Your task to perform on an android device: change notification settings in the gmail app Image 0: 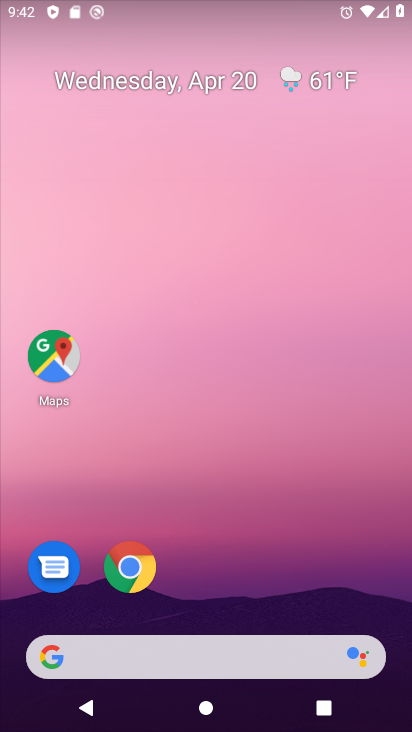
Step 0: drag from (257, 548) to (260, 185)
Your task to perform on an android device: change notification settings in the gmail app Image 1: 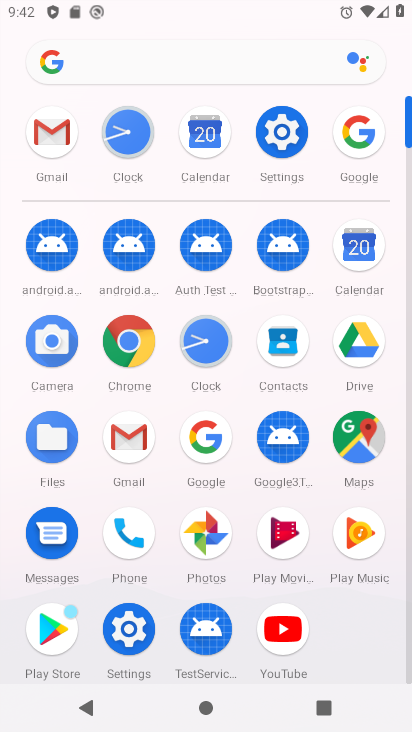
Step 1: click (56, 143)
Your task to perform on an android device: change notification settings in the gmail app Image 2: 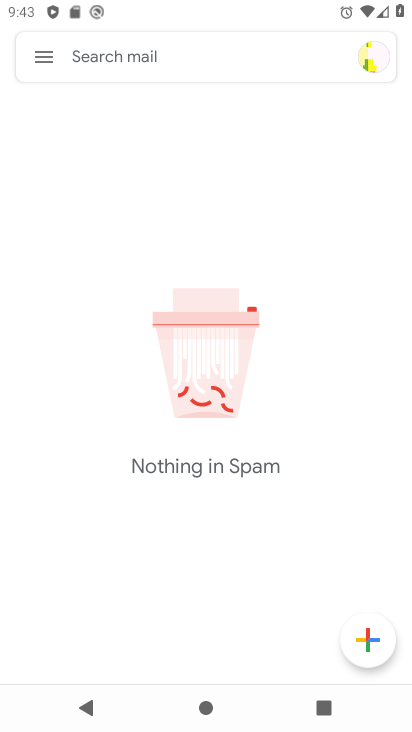
Step 2: click (48, 48)
Your task to perform on an android device: change notification settings in the gmail app Image 3: 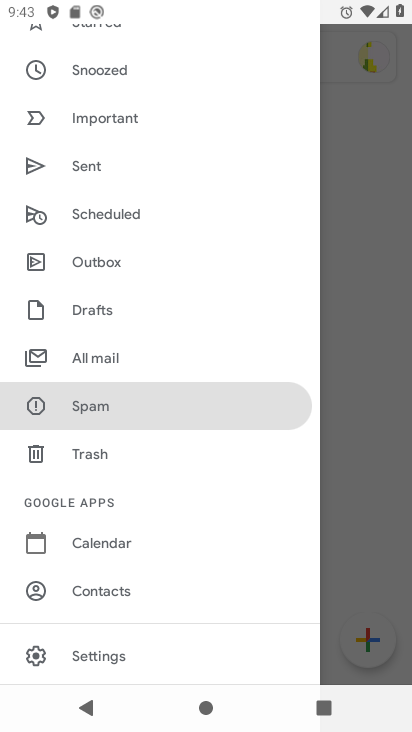
Step 3: click (116, 643)
Your task to perform on an android device: change notification settings in the gmail app Image 4: 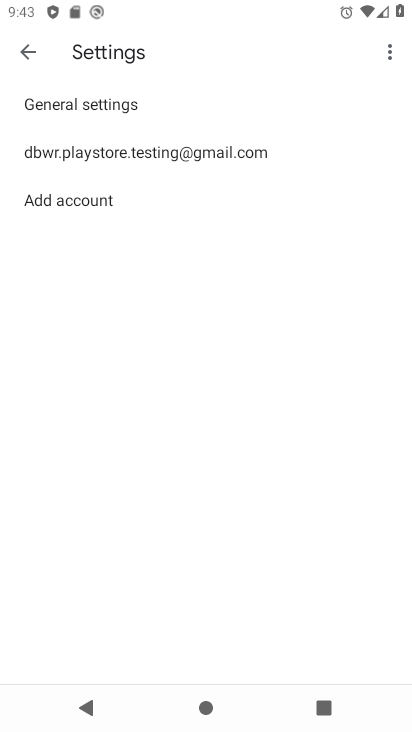
Step 4: click (156, 149)
Your task to perform on an android device: change notification settings in the gmail app Image 5: 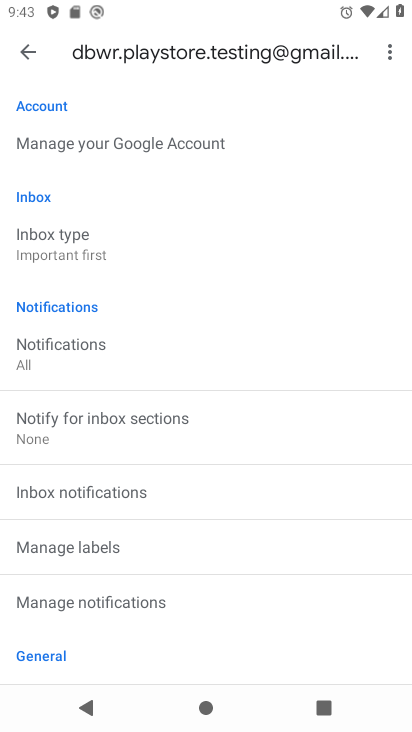
Step 5: click (135, 593)
Your task to perform on an android device: change notification settings in the gmail app Image 6: 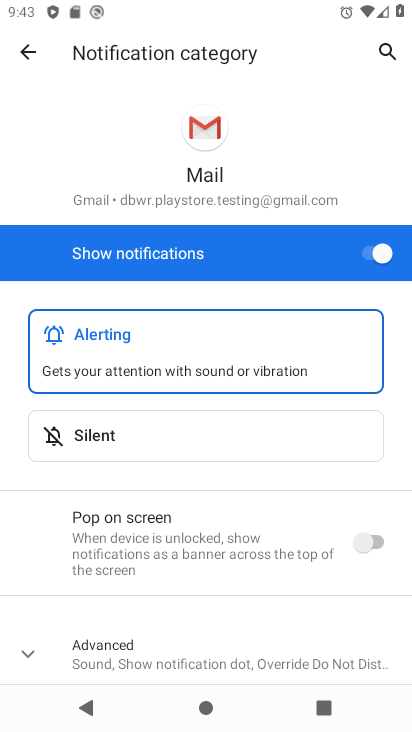
Step 6: click (363, 247)
Your task to perform on an android device: change notification settings in the gmail app Image 7: 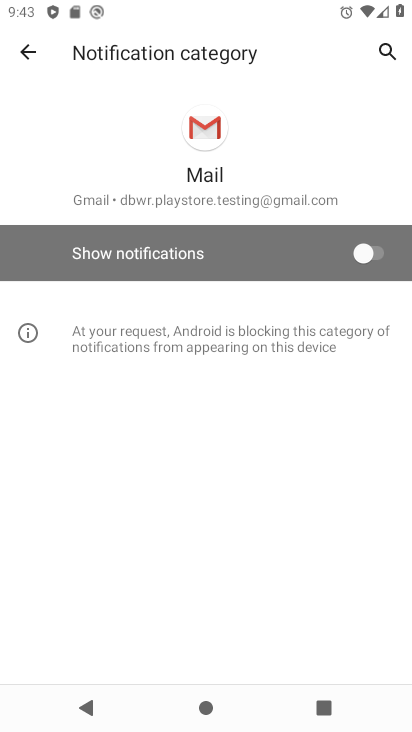
Step 7: task complete